Your task to perform on an android device: open a bookmark in the chrome app Image 0: 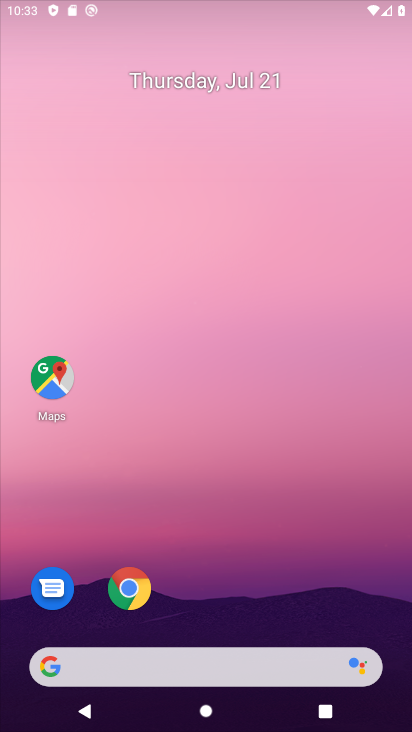
Step 0: drag from (296, 428) to (221, 9)
Your task to perform on an android device: open a bookmark in the chrome app Image 1: 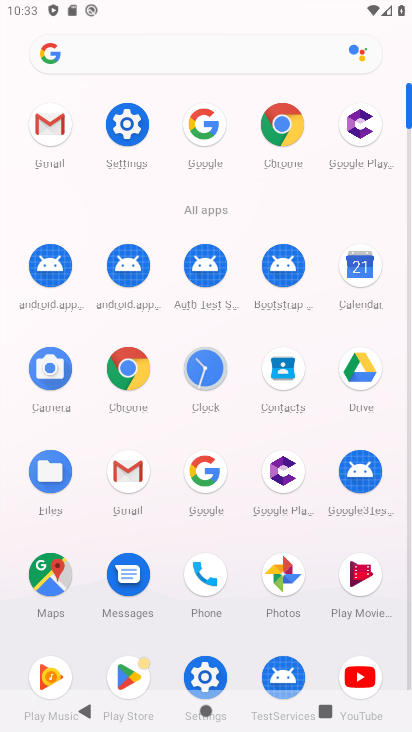
Step 1: click (283, 119)
Your task to perform on an android device: open a bookmark in the chrome app Image 2: 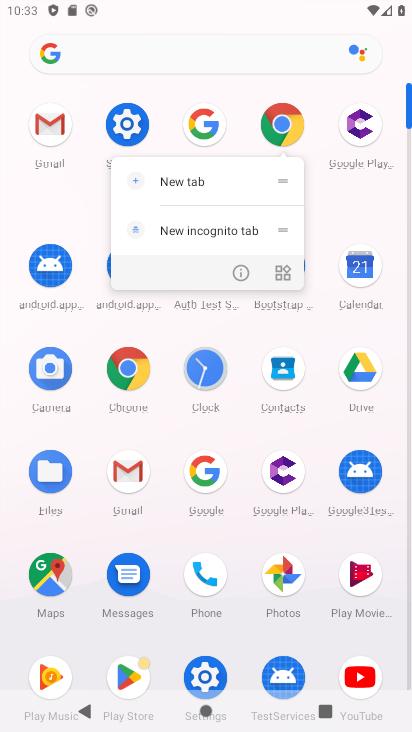
Step 2: click (283, 123)
Your task to perform on an android device: open a bookmark in the chrome app Image 3: 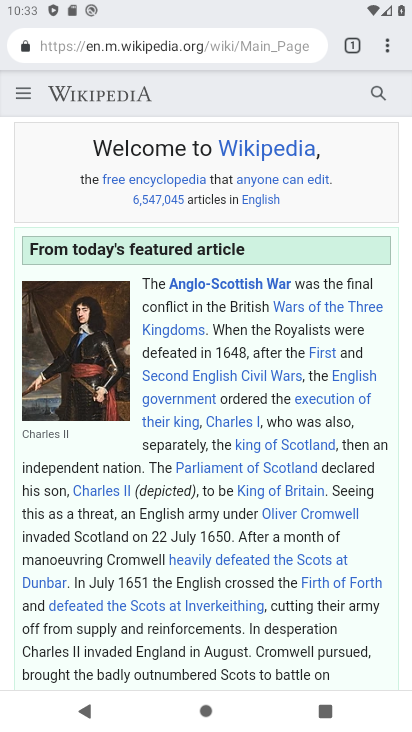
Step 3: drag from (381, 40) to (240, 170)
Your task to perform on an android device: open a bookmark in the chrome app Image 4: 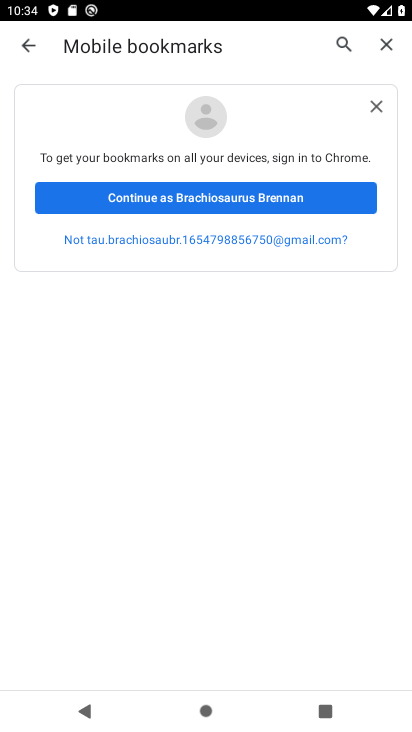
Step 4: click (159, 196)
Your task to perform on an android device: open a bookmark in the chrome app Image 5: 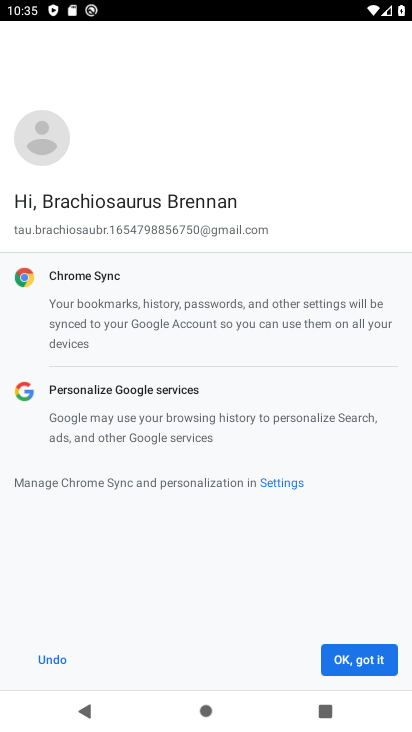
Step 5: click (367, 666)
Your task to perform on an android device: open a bookmark in the chrome app Image 6: 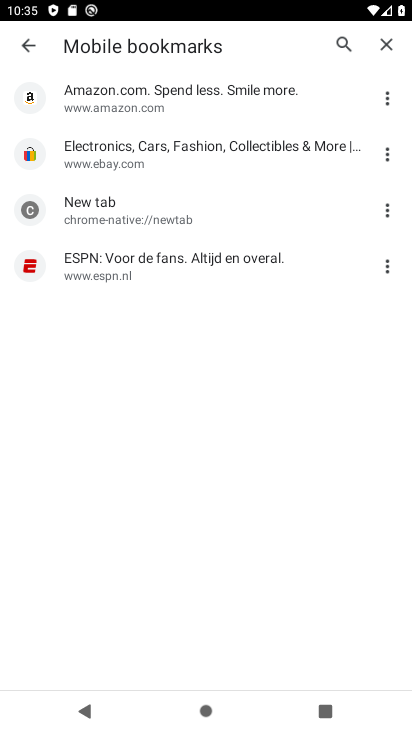
Step 6: task complete